Your task to perform on an android device: toggle show notifications on the lock screen Image 0: 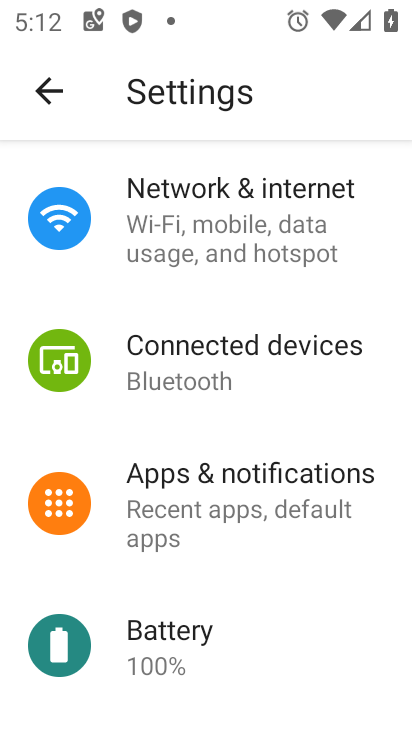
Step 0: click (273, 498)
Your task to perform on an android device: toggle show notifications on the lock screen Image 1: 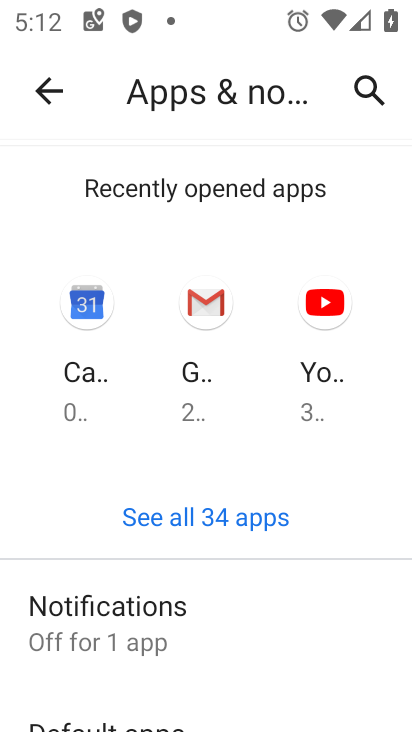
Step 1: click (220, 624)
Your task to perform on an android device: toggle show notifications on the lock screen Image 2: 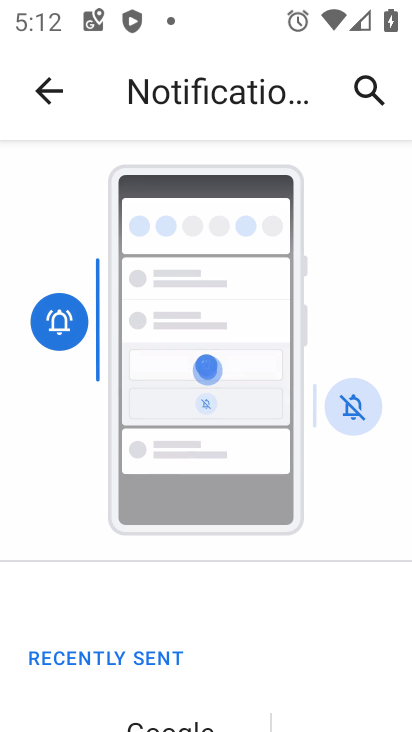
Step 2: drag from (232, 658) to (251, 75)
Your task to perform on an android device: toggle show notifications on the lock screen Image 3: 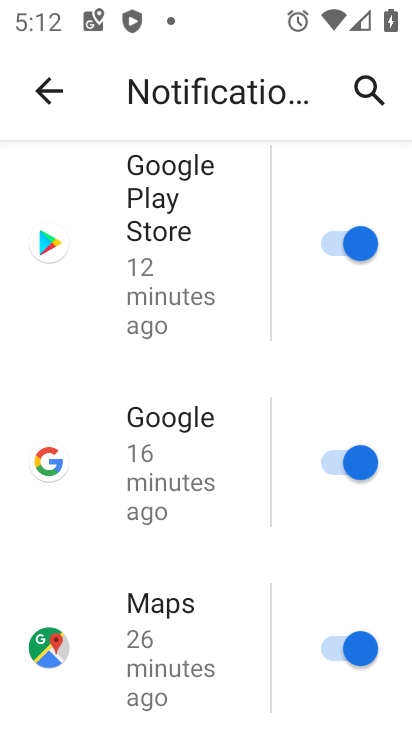
Step 3: drag from (215, 646) to (236, 210)
Your task to perform on an android device: toggle show notifications on the lock screen Image 4: 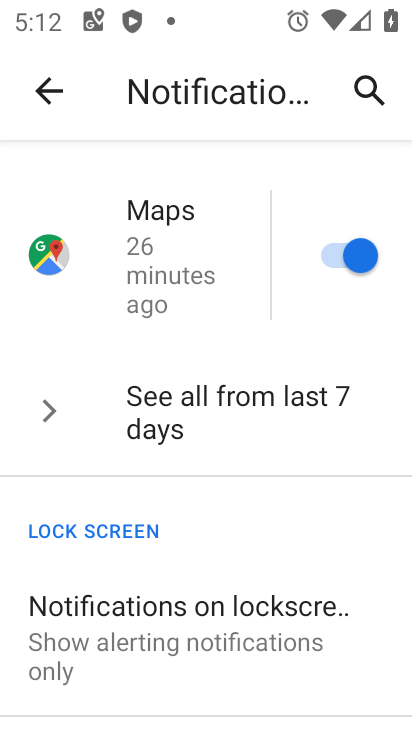
Step 4: click (262, 621)
Your task to perform on an android device: toggle show notifications on the lock screen Image 5: 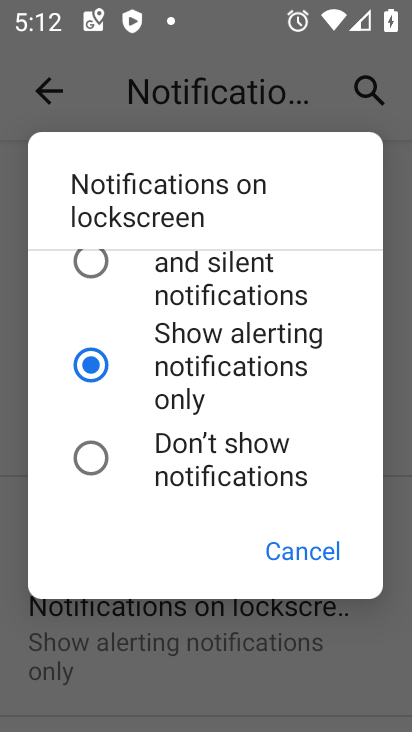
Step 5: click (92, 258)
Your task to perform on an android device: toggle show notifications on the lock screen Image 6: 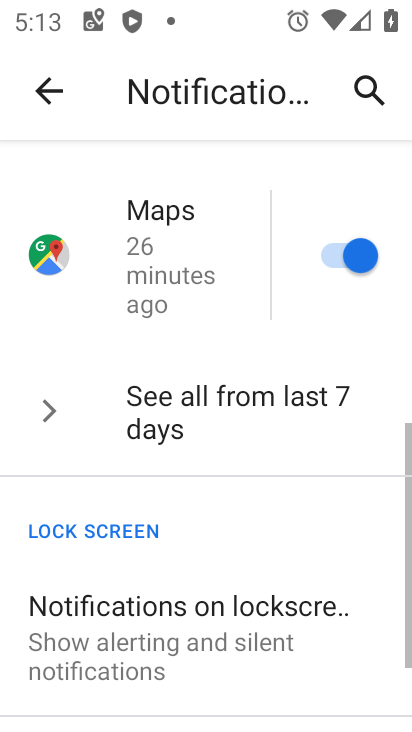
Step 6: task complete